Your task to perform on an android device: Open the map Image 0: 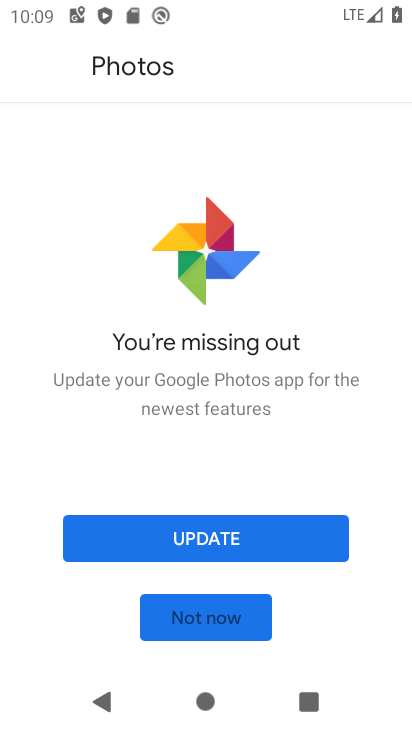
Step 0: press home button
Your task to perform on an android device: Open the map Image 1: 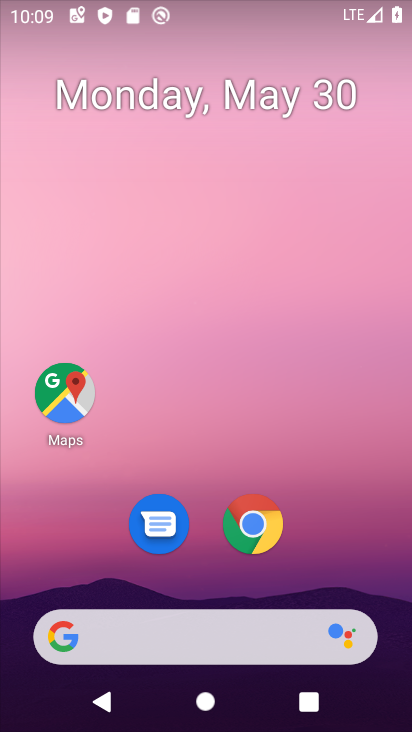
Step 1: click (66, 404)
Your task to perform on an android device: Open the map Image 2: 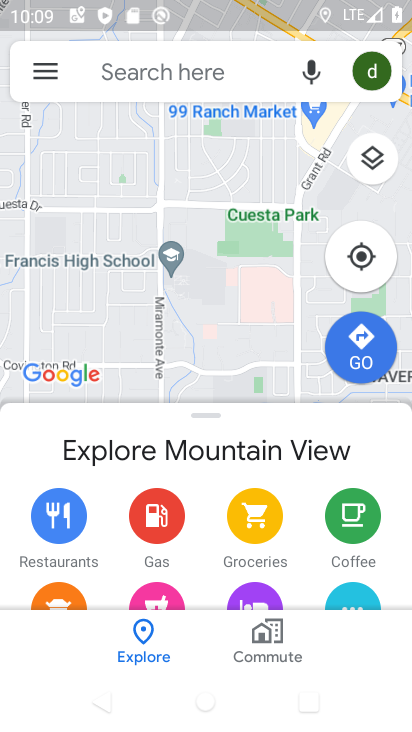
Step 2: task complete